Your task to perform on an android device: change your default location settings in chrome Image 0: 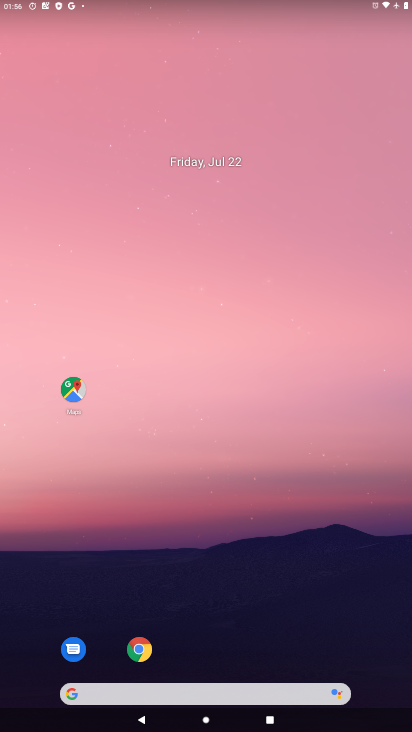
Step 0: drag from (352, 614) to (305, 211)
Your task to perform on an android device: change your default location settings in chrome Image 1: 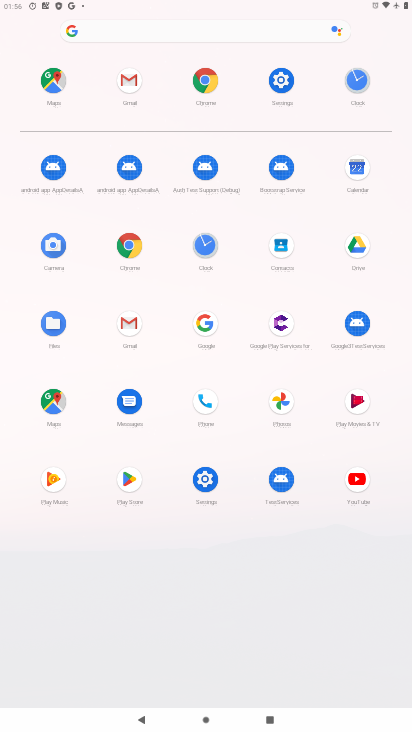
Step 1: click (130, 244)
Your task to perform on an android device: change your default location settings in chrome Image 2: 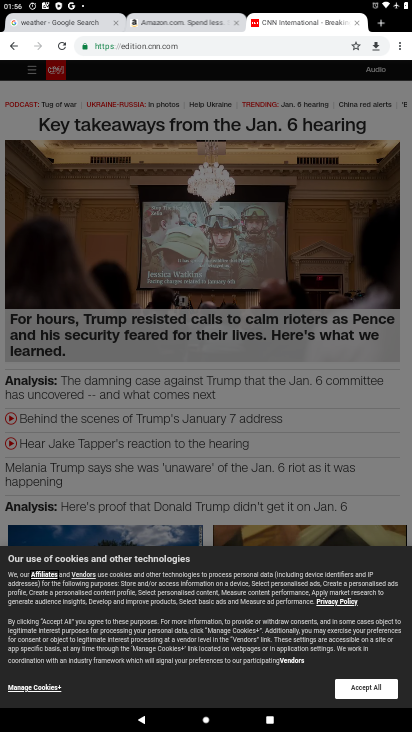
Step 2: drag from (406, 42) to (311, 312)
Your task to perform on an android device: change your default location settings in chrome Image 3: 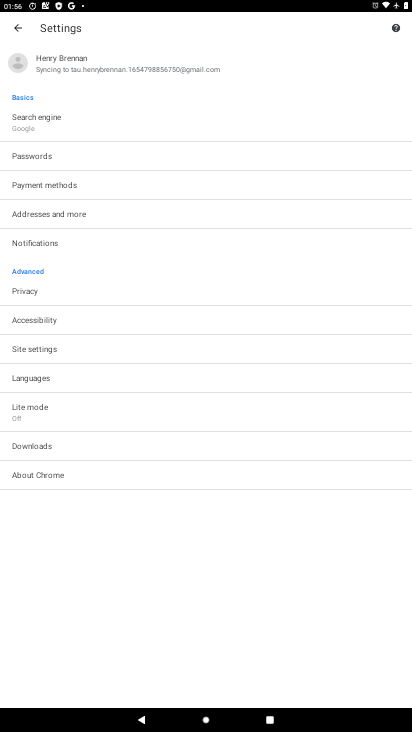
Step 3: click (52, 123)
Your task to perform on an android device: change your default location settings in chrome Image 4: 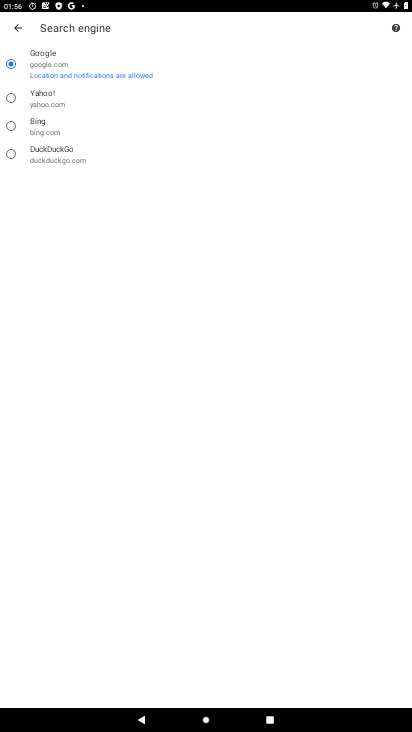
Step 4: click (12, 30)
Your task to perform on an android device: change your default location settings in chrome Image 5: 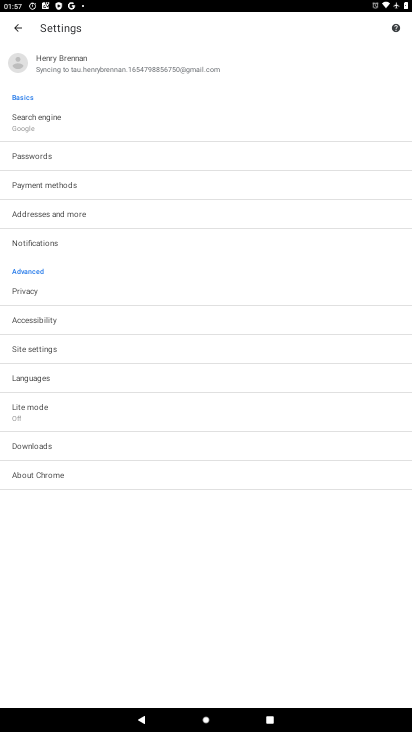
Step 5: click (65, 344)
Your task to perform on an android device: change your default location settings in chrome Image 6: 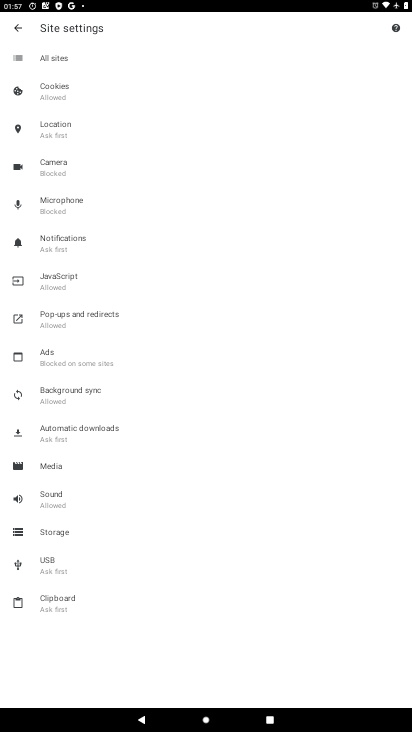
Step 6: click (57, 124)
Your task to perform on an android device: change your default location settings in chrome Image 7: 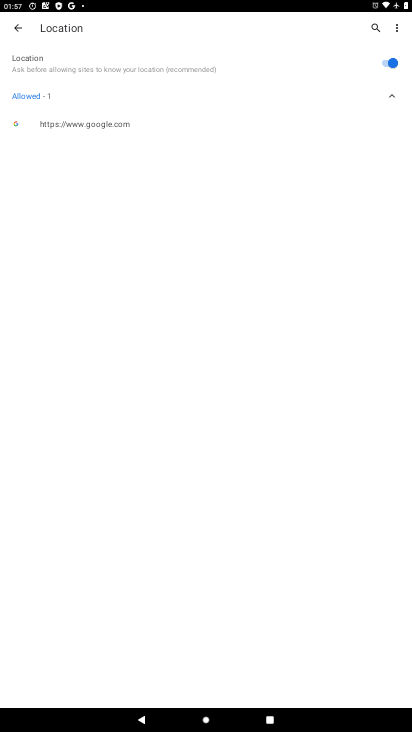
Step 7: click (392, 60)
Your task to perform on an android device: change your default location settings in chrome Image 8: 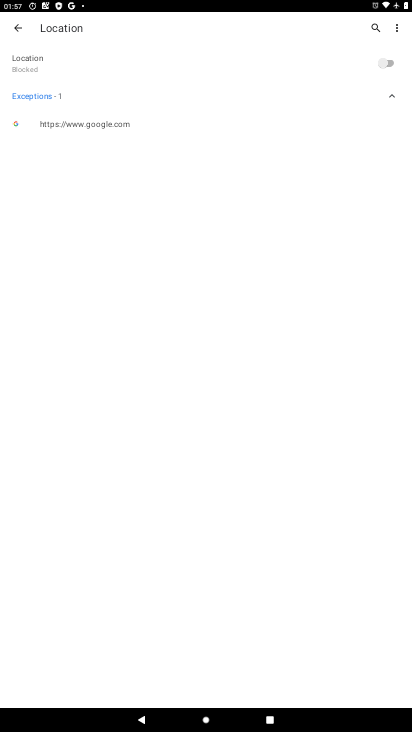
Step 8: task complete